Your task to perform on an android device: Open Android settings Image 0: 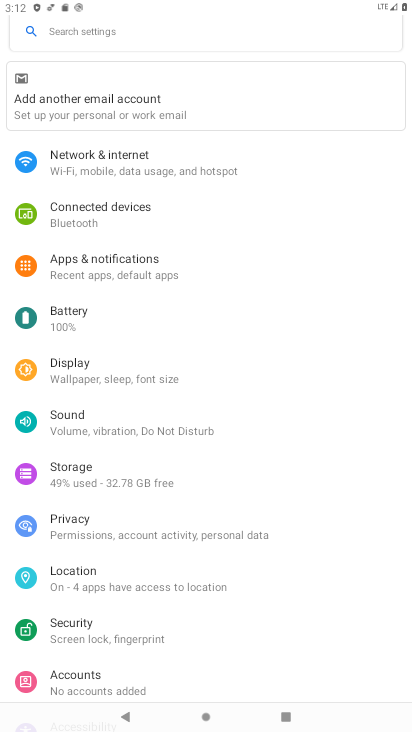
Step 0: drag from (123, 610) to (113, 200)
Your task to perform on an android device: Open Android settings Image 1: 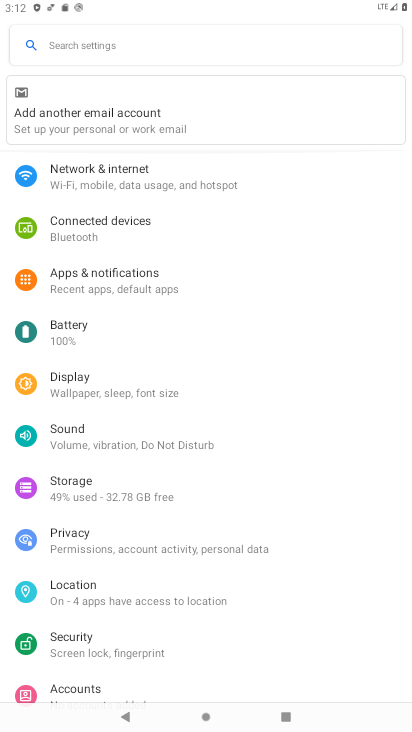
Step 1: drag from (86, 269) to (109, 217)
Your task to perform on an android device: Open Android settings Image 2: 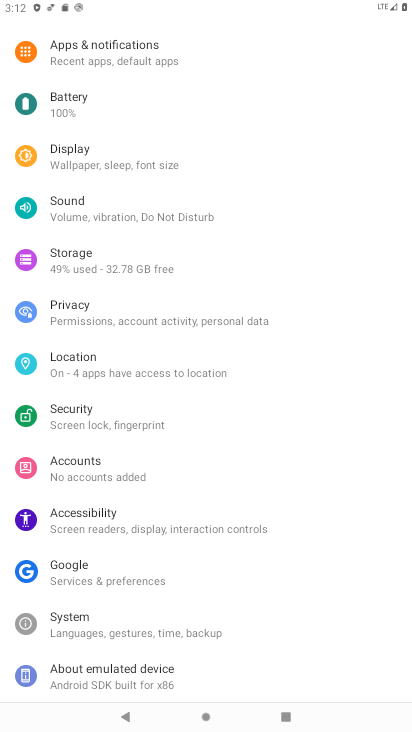
Step 2: click (107, 677)
Your task to perform on an android device: Open Android settings Image 3: 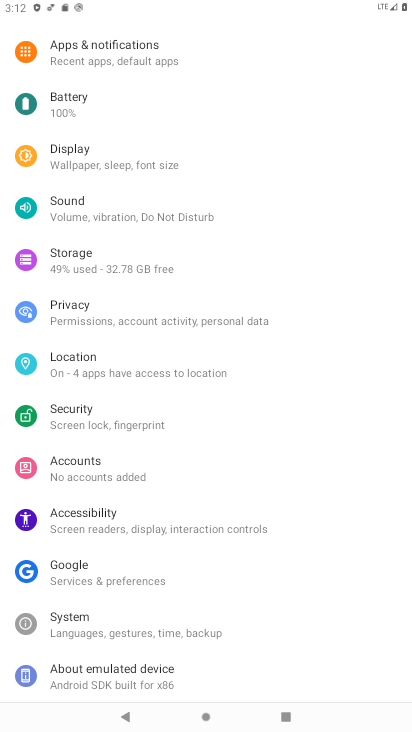
Step 3: click (107, 677)
Your task to perform on an android device: Open Android settings Image 4: 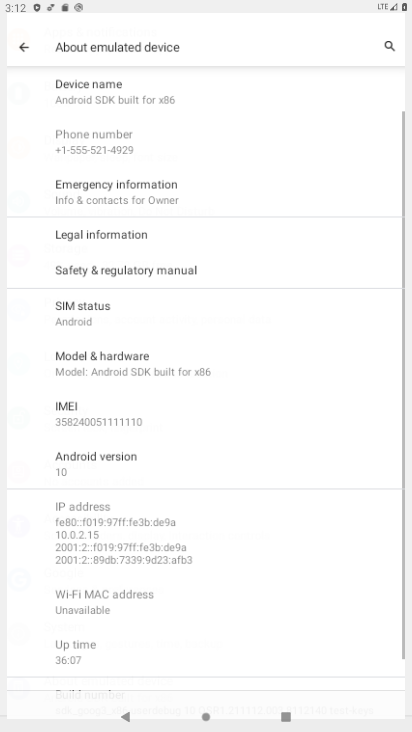
Step 4: click (107, 677)
Your task to perform on an android device: Open Android settings Image 5: 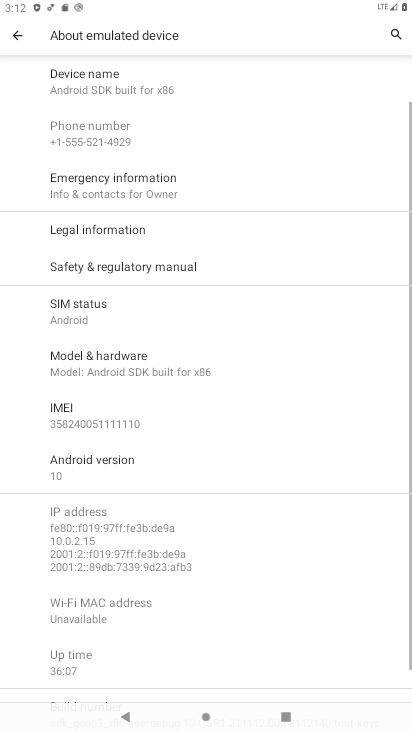
Step 5: click (107, 677)
Your task to perform on an android device: Open Android settings Image 6: 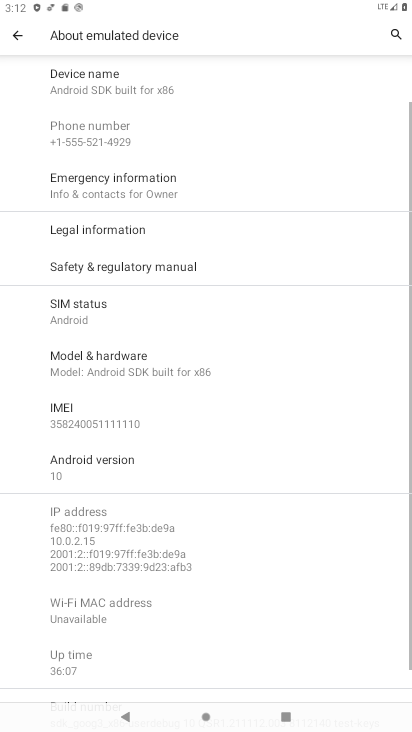
Step 6: click (107, 677)
Your task to perform on an android device: Open Android settings Image 7: 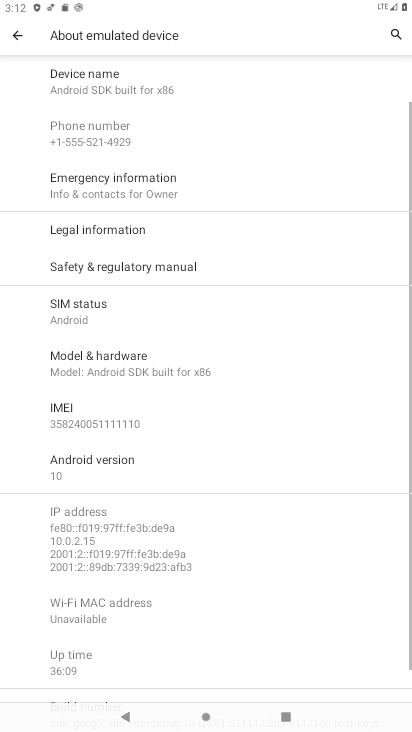
Step 7: task complete